Your task to perform on an android device: What's the weather going to be this weekend? Image 0: 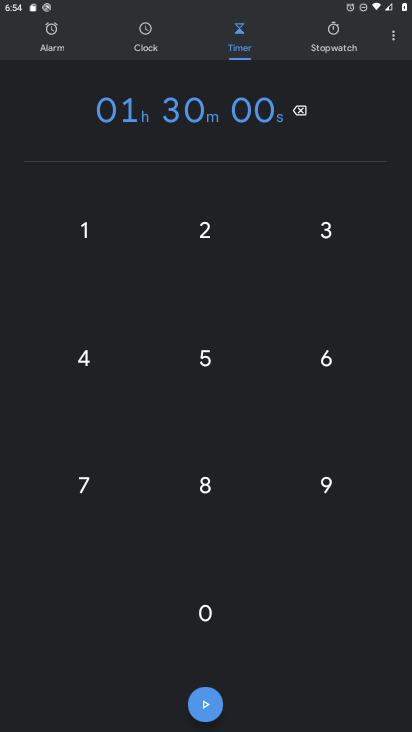
Step 0: press home button
Your task to perform on an android device: What's the weather going to be this weekend? Image 1: 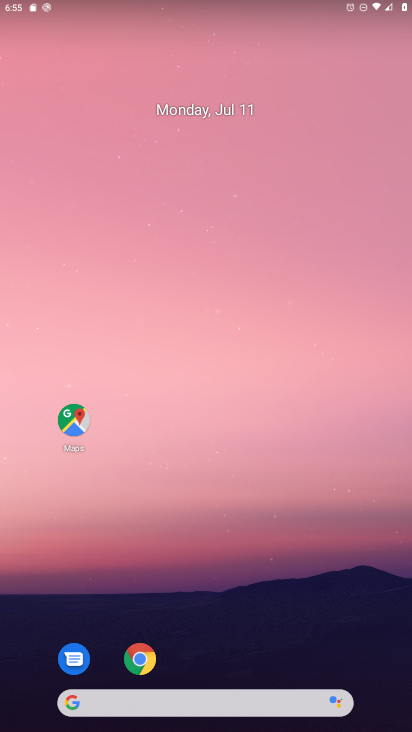
Step 1: task complete